Your task to perform on an android device: refresh tabs in the chrome app Image 0: 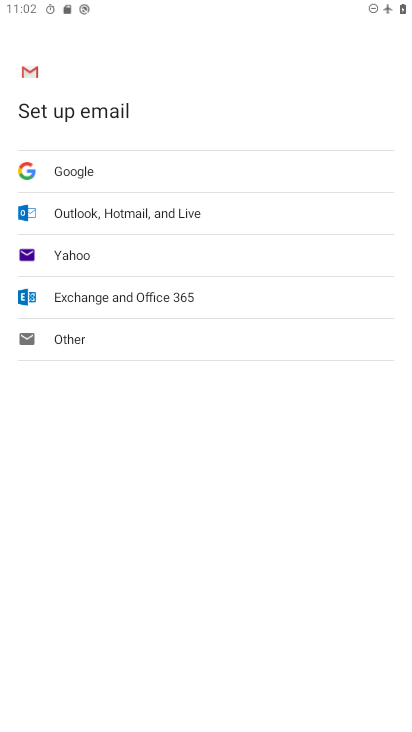
Step 0: press home button
Your task to perform on an android device: refresh tabs in the chrome app Image 1: 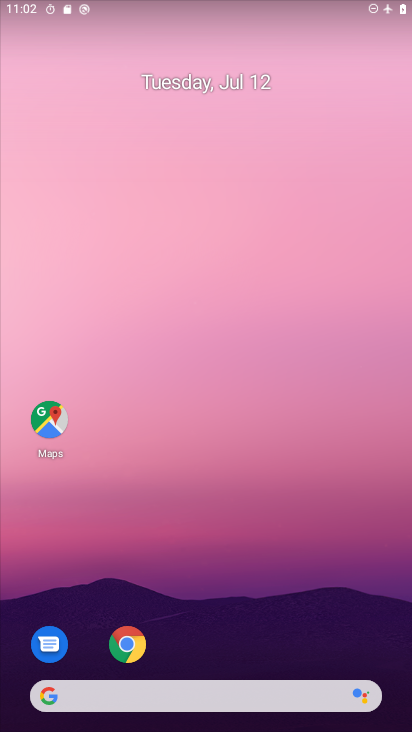
Step 1: drag from (189, 635) to (205, 190)
Your task to perform on an android device: refresh tabs in the chrome app Image 2: 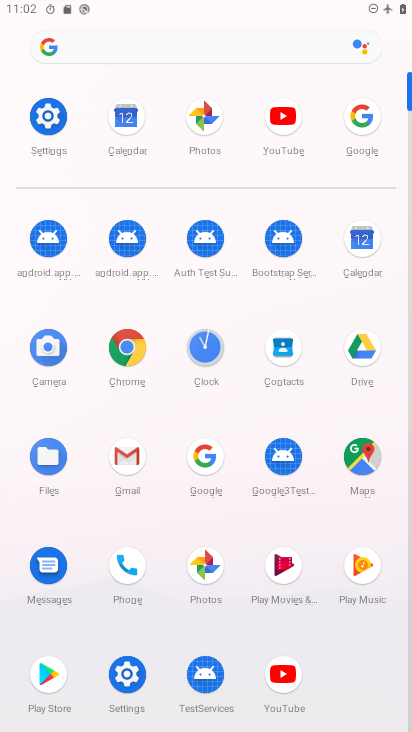
Step 2: click (122, 349)
Your task to perform on an android device: refresh tabs in the chrome app Image 3: 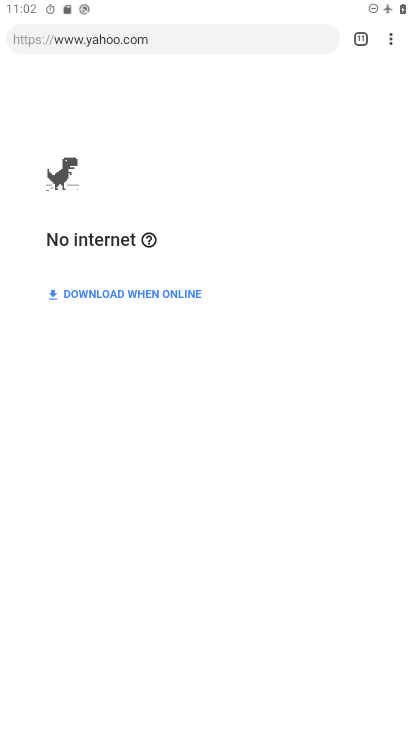
Step 3: click (386, 40)
Your task to perform on an android device: refresh tabs in the chrome app Image 4: 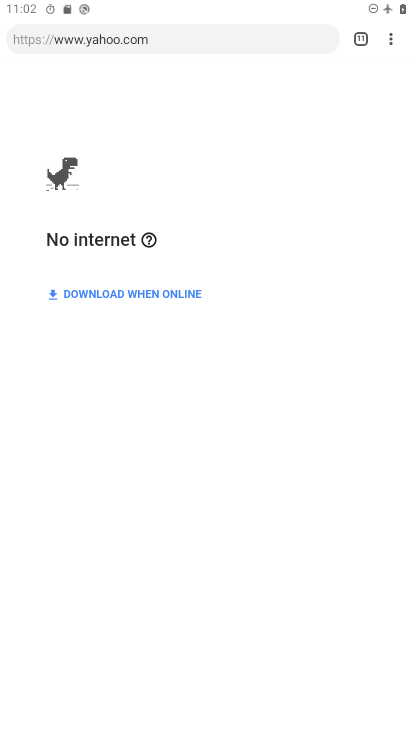
Step 4: click (381, 33)
Your task to perform on an android device: refresh tabs in the chrome app Image 5: 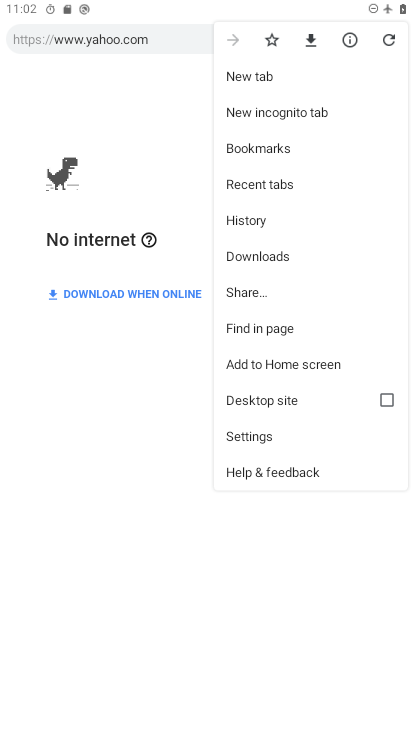
Step 5: click (376, 39)
Your task to perform on an android device: refresh tabs in the chrome app Image 6: 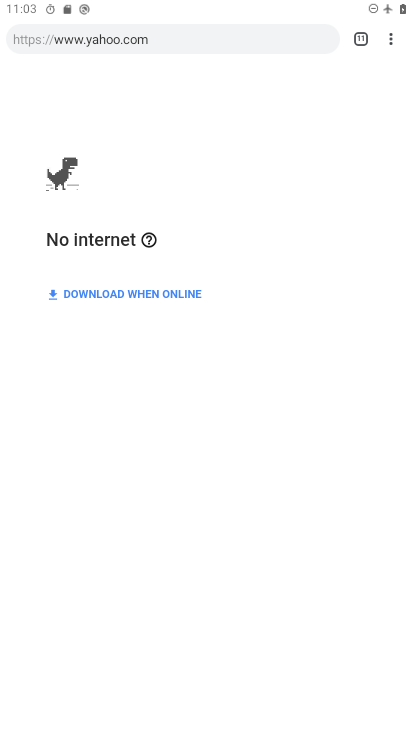
Step 6: click (396, 30)
Your task to perform on an android device: refresh tabs in the chrome app Image 7: 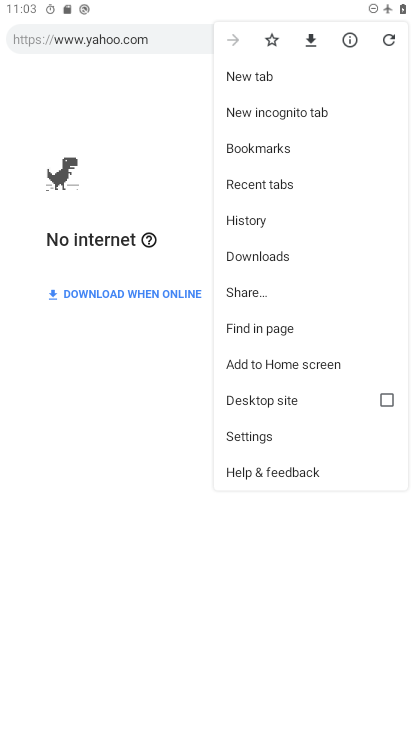
Step 7: click (403, 36)
Your task to perform on an android device: refresh tabs in the chrome app Image 8: 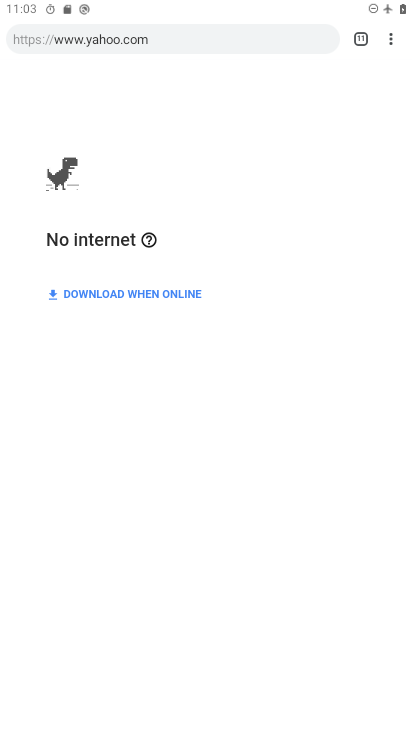
Step 8: task complete